Your task to perform on an android device: toggle notification dots Image 0: 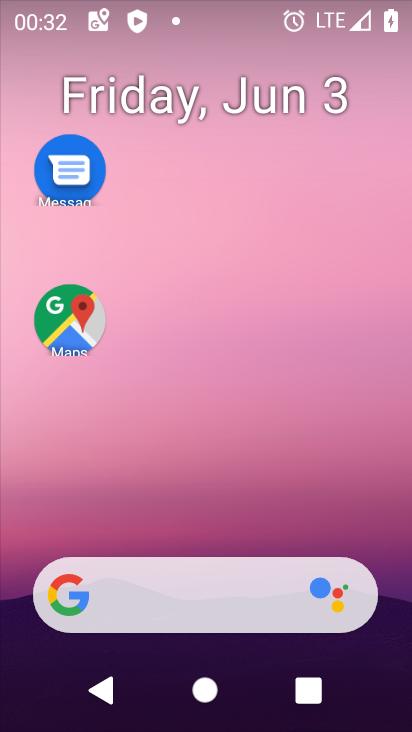
Step 0: press home button
Your task to perform on an android device: toggle notification dots Image 1: 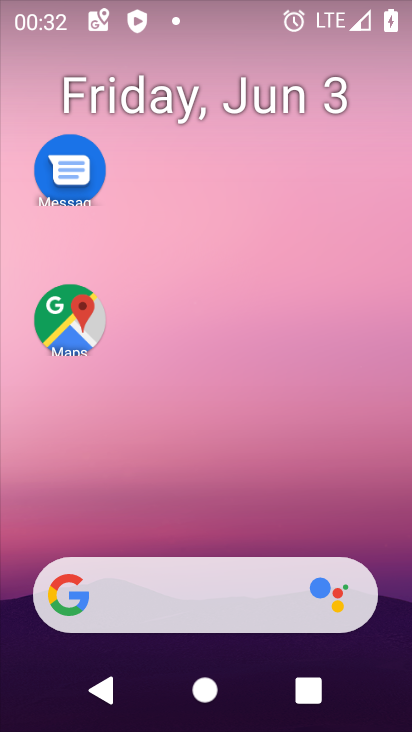
Step 1: drag from (304, 534) to (308, 55)
Your task to perform on an android device: toggle notification dots Image 2: 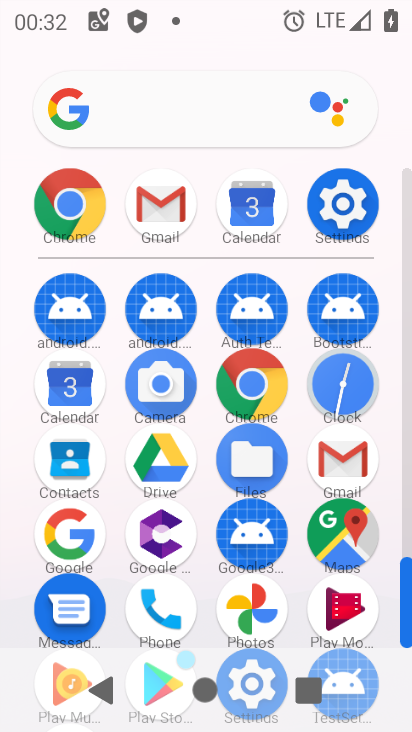
Step 2: click (319, 200)
Your task to perform on an android device: toggle notification dots Image 3: 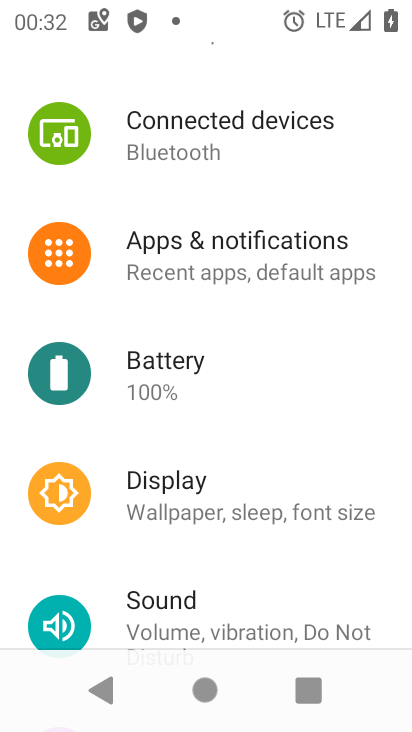
Step 3: click (216, 274)
Your task to perform on an android device: toggle notification dots Image 4: 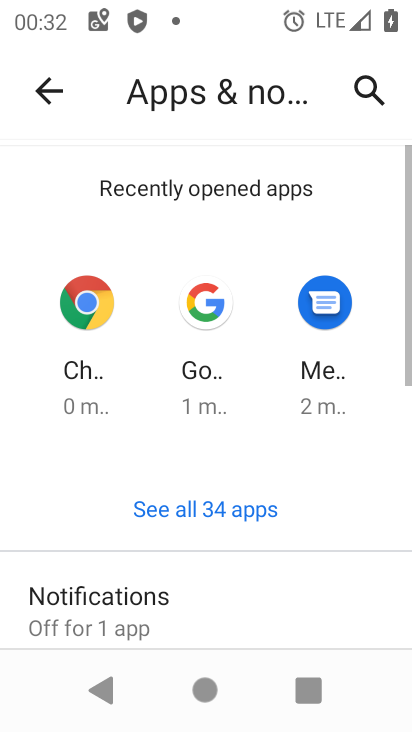
Step 4: click (200, 623)
Your task to perform on an android device: toggle notification dots Image 5: 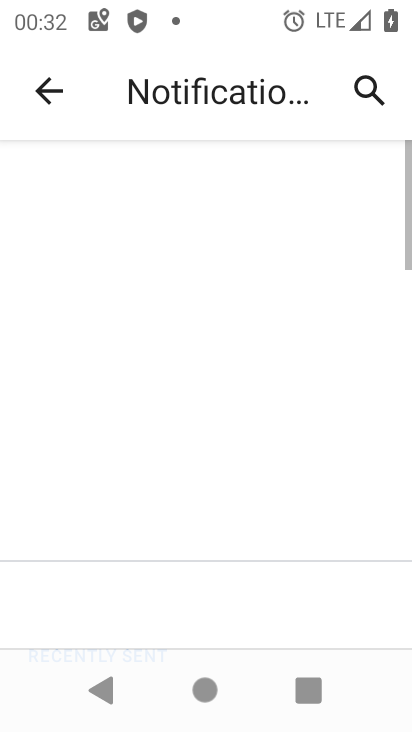
Step 5: drag from (243, 586) to (238, 101)
Your task to perform on an android device: toggle notification dots Image 6: 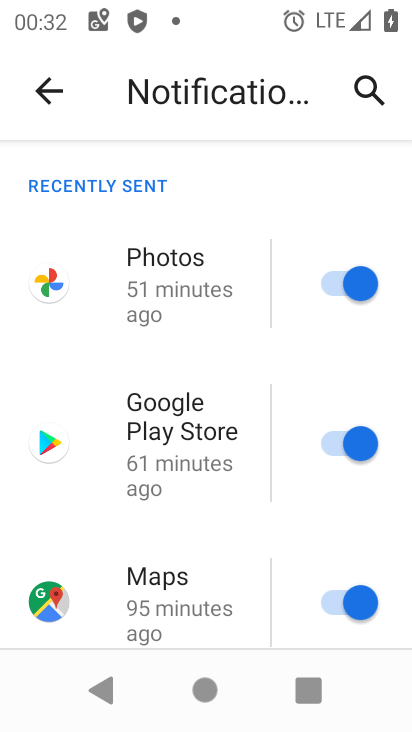
Step 6: drag from (238, 556) to (244, 112)
Your task to perform on an android device: toggle notification dots Image 7: 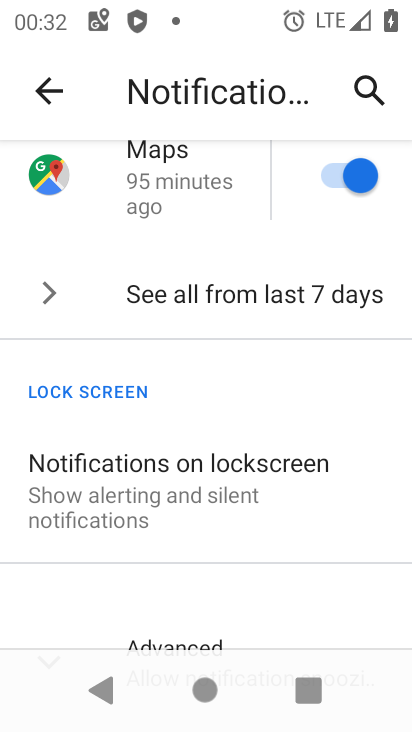
Step 7: drag from (186, 537) to (177, 103)
Your task to perform on an android device: toggle notification dots Image 8: 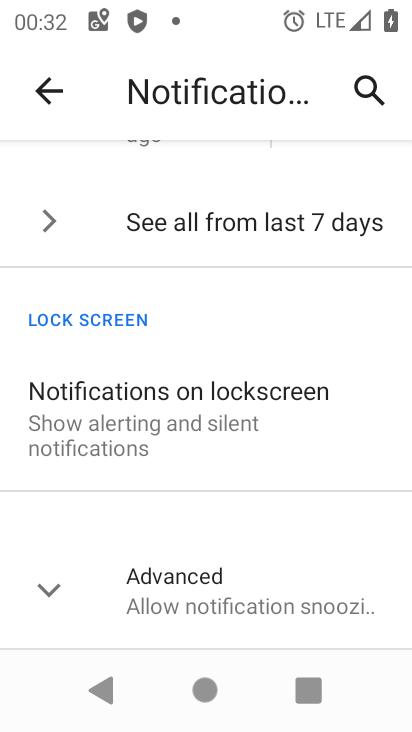
Step 8: click (180, 581)
Your task to perform on an android device: toggle notification dots Image 9: 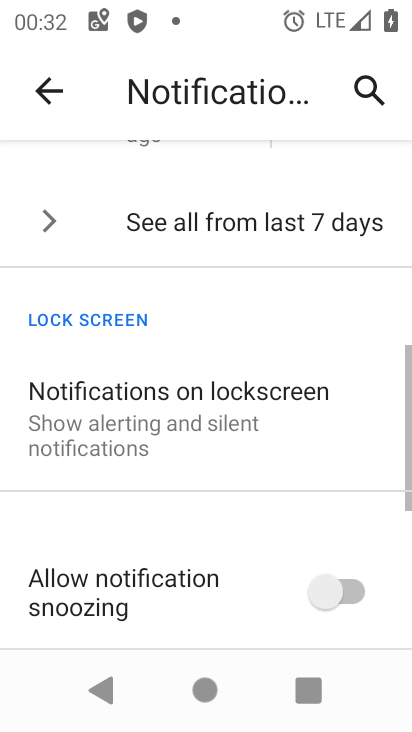
Step 9: click (201, 213)
Your task to perform on an android device: toggle notification dots Image 10: 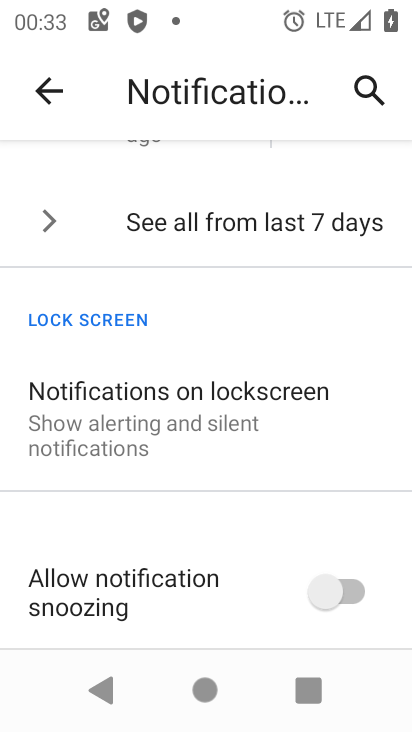
Step 10: click (216, 354)
Your task to perform on an android device: toggle notification dots Image 11: 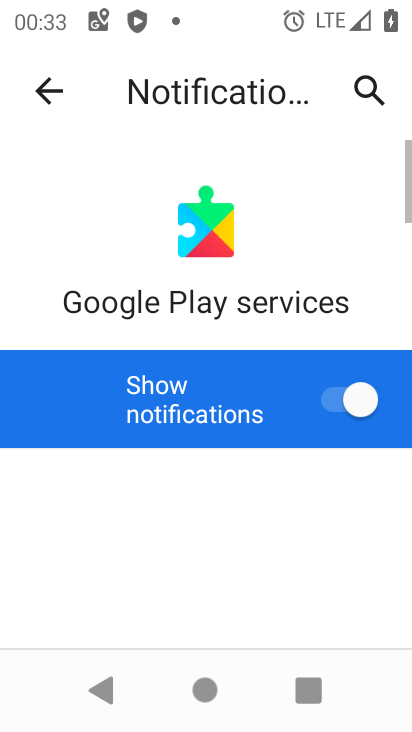
Step 11: drag from (214, 596) to (204, 381)
Your task to perform on an android device: toggle notification dots Image 12: 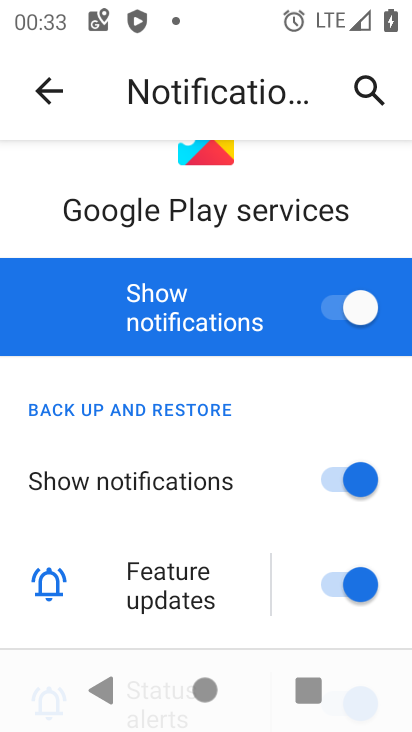
Step 12: click (43, 99)
Your task to perform on an android device: toggle notification dots Image 13: 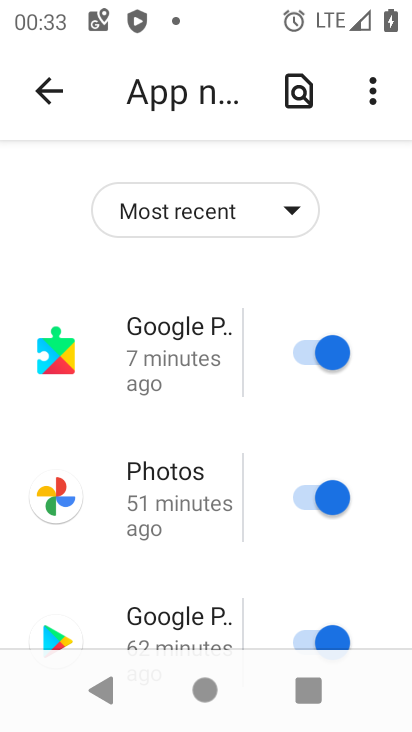
Step 13: drag from (203, 551) to (151, 211)
Your task to perform on an android device: toggle notification dots Image 14: 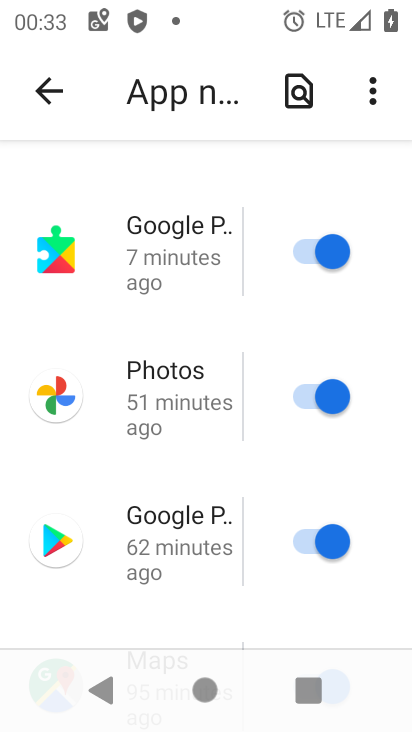
Step 14: drag from (218, 591) to (166, 186)
Your task to perform on an android device: toggle notification dots Image 15: 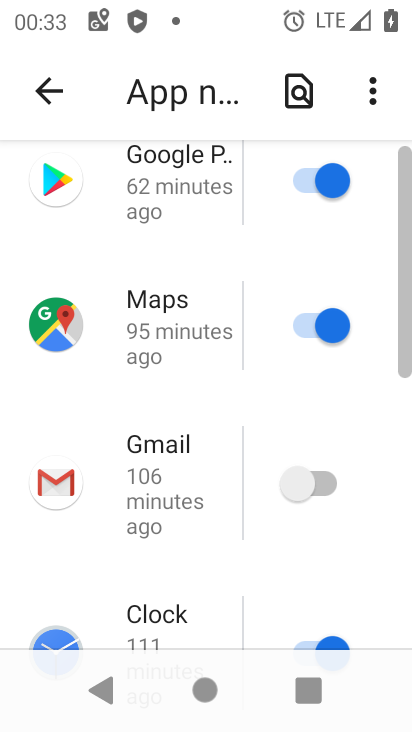
Step 15: drag from (153, 621) to (171, 209)
Your task to perform on an android device: toggle notification dots Image 16: 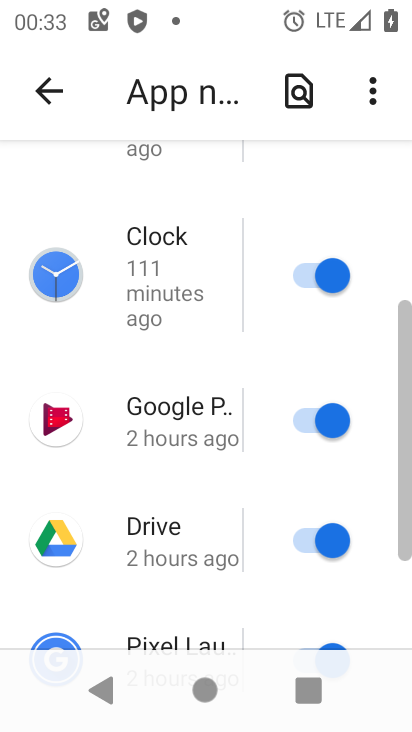
Step 16: drag from (163, 603) to (176, 226)
Your task to perform on an android device: toggle notification dots Image 17: 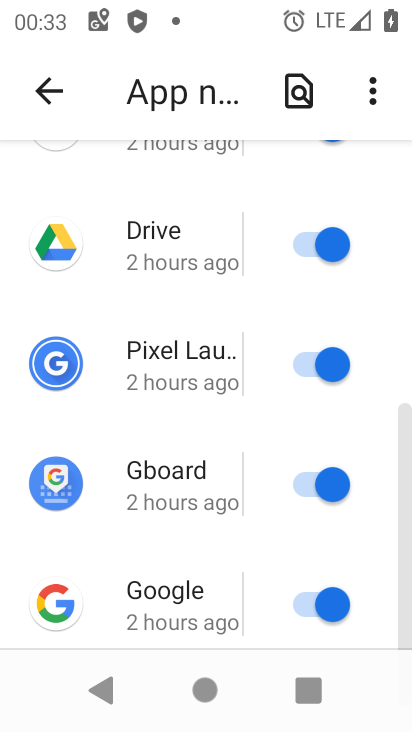
Step 17: click (166, 194)
Your task to perform on an android device: toggle notification dots Image 18: 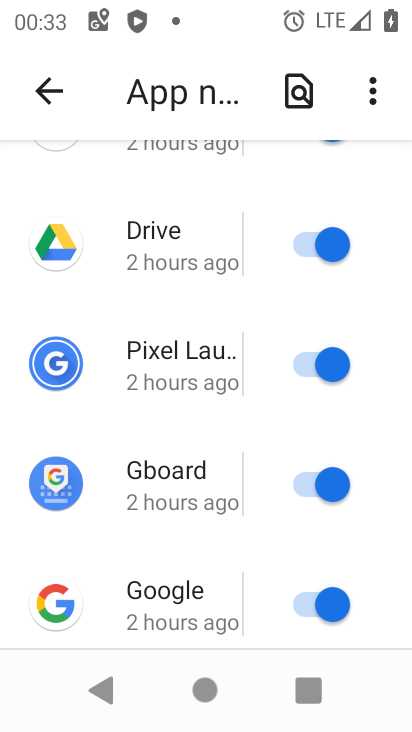
Step 18: click (31, 95)
Your task to perform on an android device: toggle notification dots Image 19: 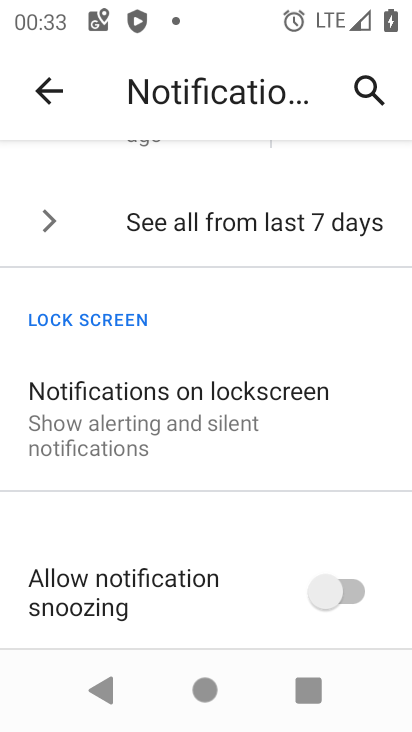
Step 19: drag from (158, 536) to (162, 13)
Your task to perform on an android device: toggle notification dots Image 20: 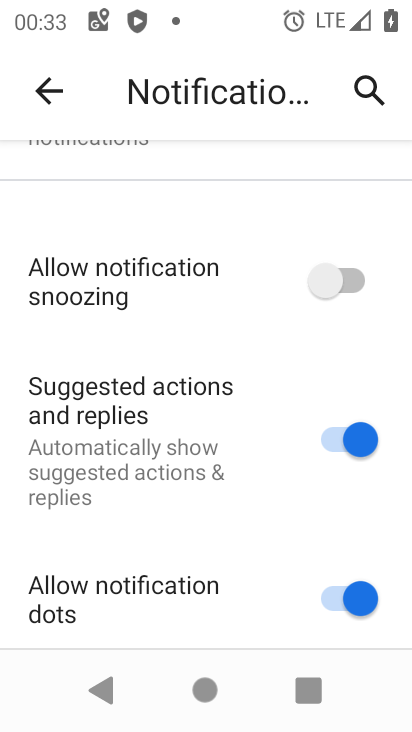
Step 20: click (117, 600)
Your task to perform on an android device: toggle notification dots Image 21: 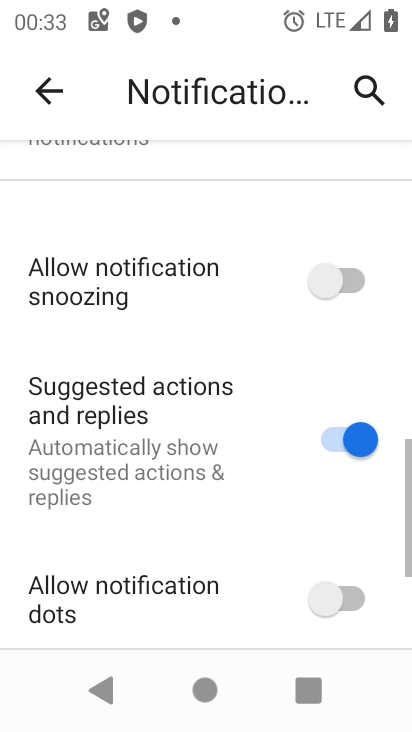
Step 21: task complete